Your task to perform on an android device: Open the Play Movies app and select the watchlist tab. Image 0: 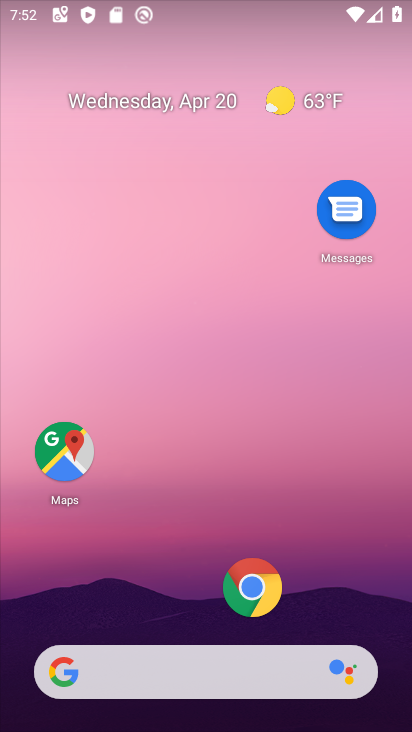
Step 0: drag from (150, 663) to (317, 85)
Your task to perform on an android device: Open the Play Movies app and select the watchlist tab. Image 1: 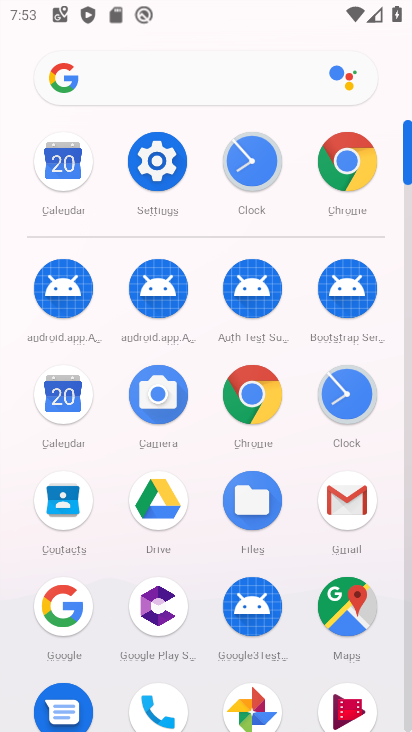
Step 1: drag from (196, 614) to (370, 151)
Your task to perform on an android device: Open the Play Movies app and select the watchlist tab. Image 2: 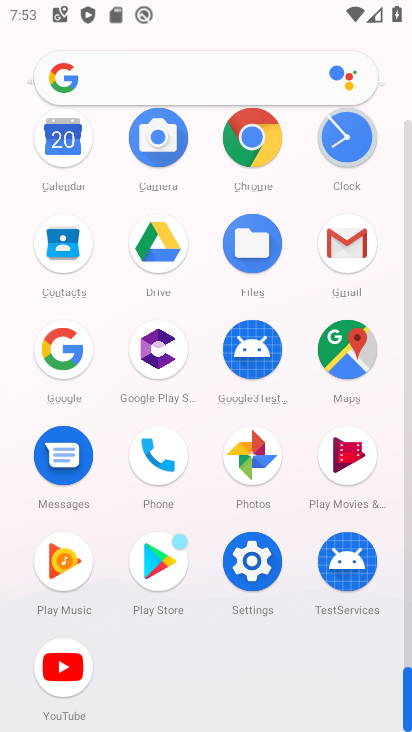
Step 2: click (348, 458)
Your task to perform on an android device: Open the Play Movies app and select the watchlist tab. Image 3: 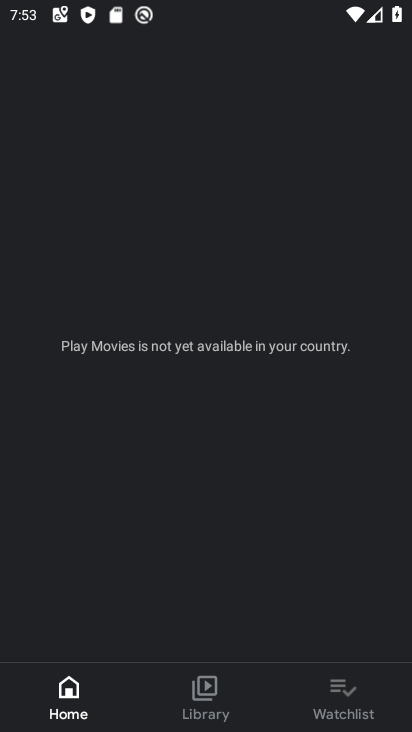
Step 3: click (353, 700)
Your task to perform on an android device: Open the Play Movies app and select the watchlist tab. Image 4: 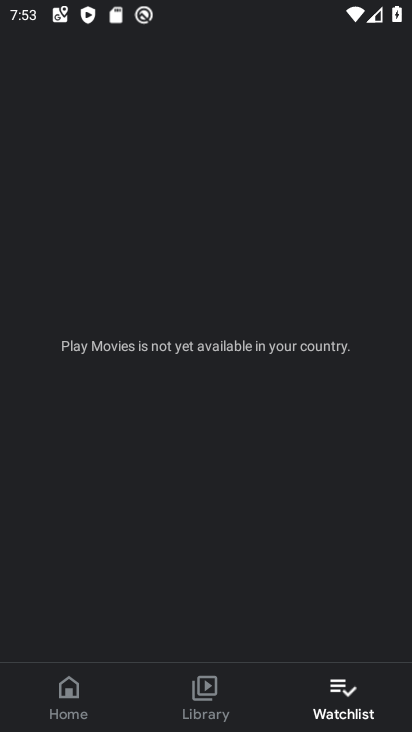
Step 4: task complete